Your task to perform on an android device: Open Chrome and go to the settings page Image 0: 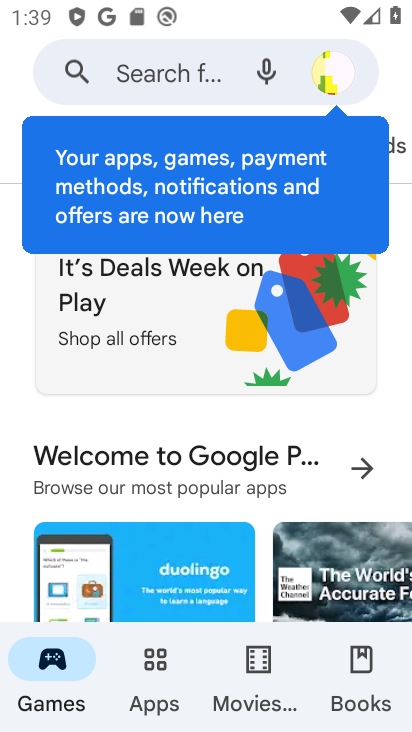
Step 0: press home button
Your task to perform on an android device: Open Chrome and go to the settings page Image 1: 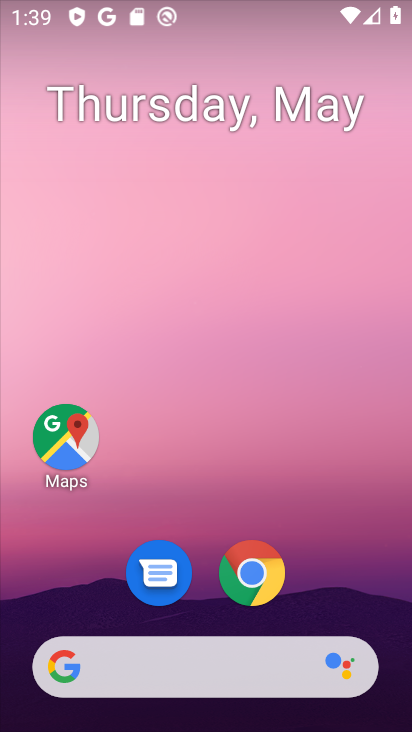
Step 1: click (249, 555)
Your task to perform on an android device: Open Chrome and go to the settings page Image 2: 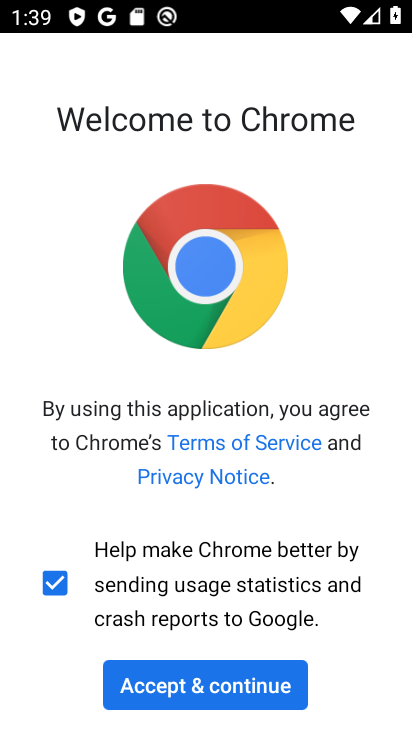
Step 2: click (386, 64)
Your task to perform on an android device: Open Chrome and go to the settings page Image 3: 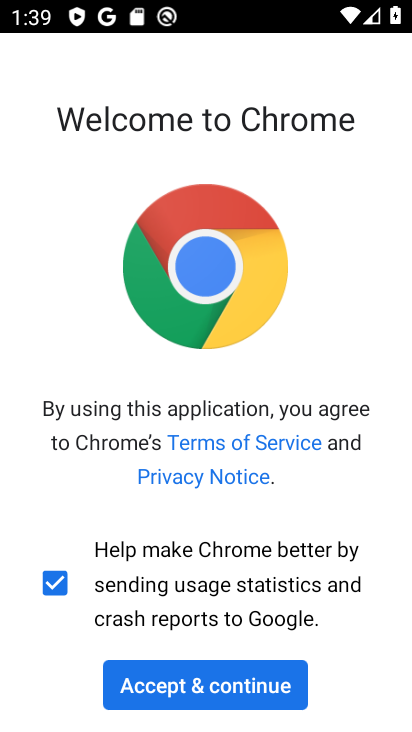
Step 3: click (211, 682)
Your task to perform on an android device: Open Chrome and go to the settings page Image 4: 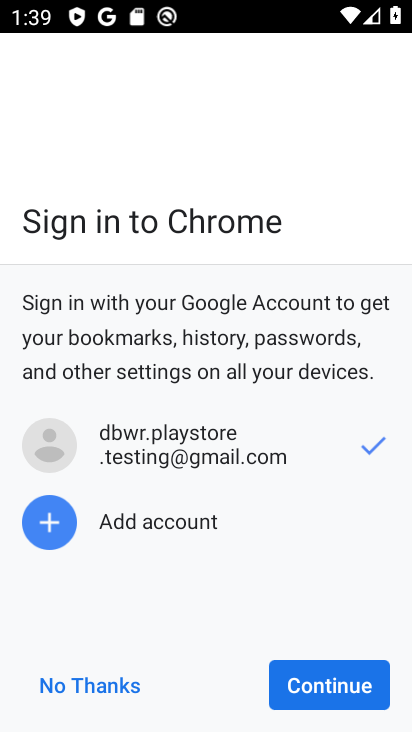
Step 4: click (318, 671)
Your task to perform on an android device: Open Chrome and go to the settings page Image 5: 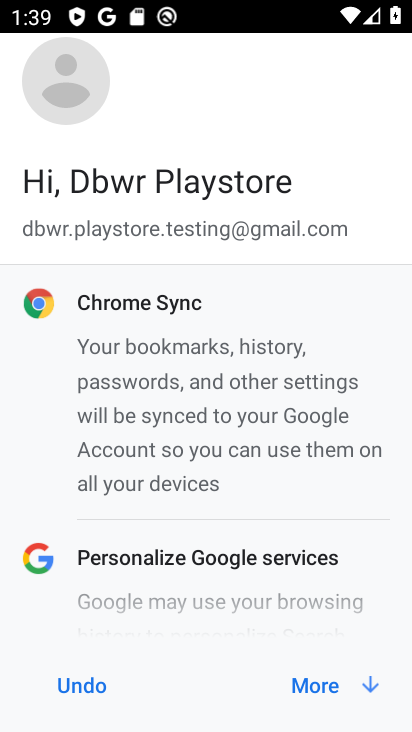
Step 5: click (312, 692)
Your task to perform on an android device: Open Chrome and go to the settings page Image 6: 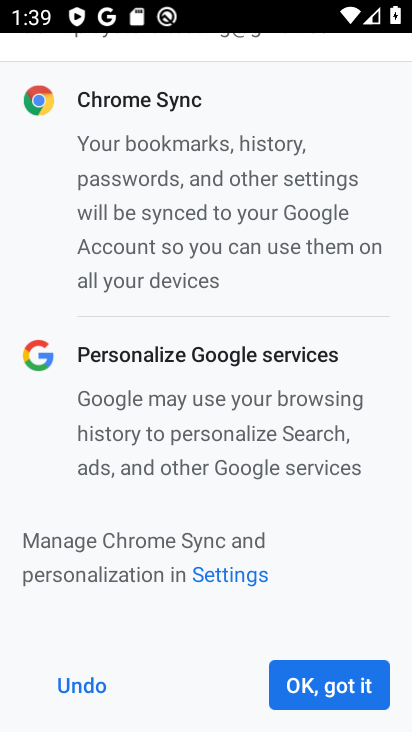
Step 6: click (325, 685)
Your task to perform on an android device: Open Chrome and go to the settings page Image 7: 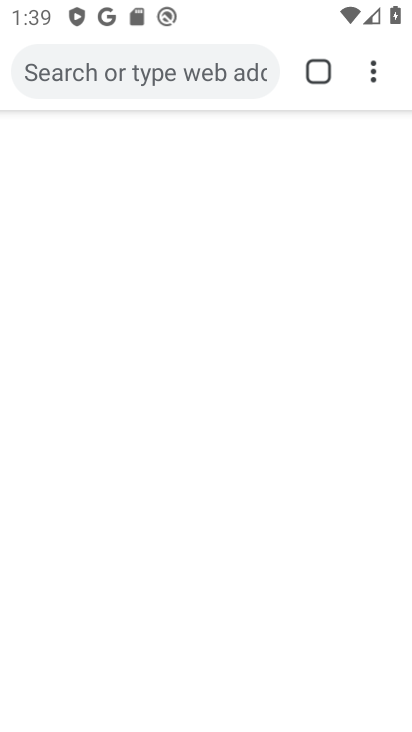
Step 7: click (365, 63)
Your task to perform on an android device: Open Chrome and go to the settings page Image 8: 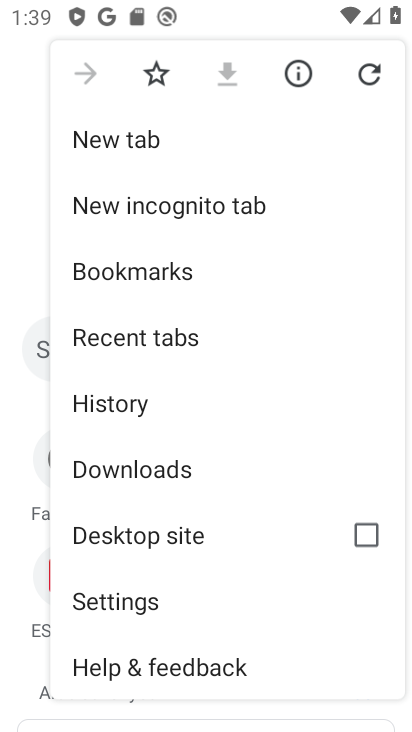
Step 8: click (171, 611)
Your task to perform on an android device: Open Chrome and go to the settings page Image 9: 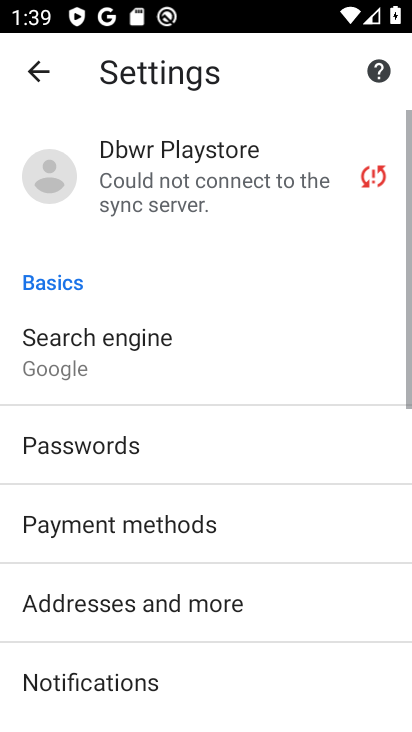
Step 9: task complete